Your task to perform on an android device: check android version Image 0: 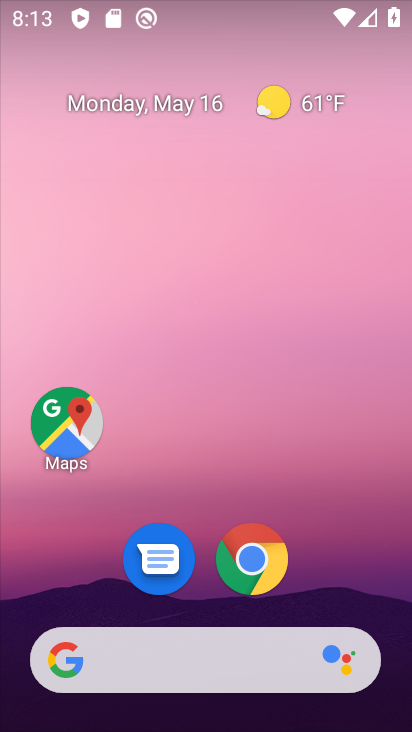
Step 0: drag from (334, 605) to (356, 126)
Your task to perform on an android device: check android version Image 1: 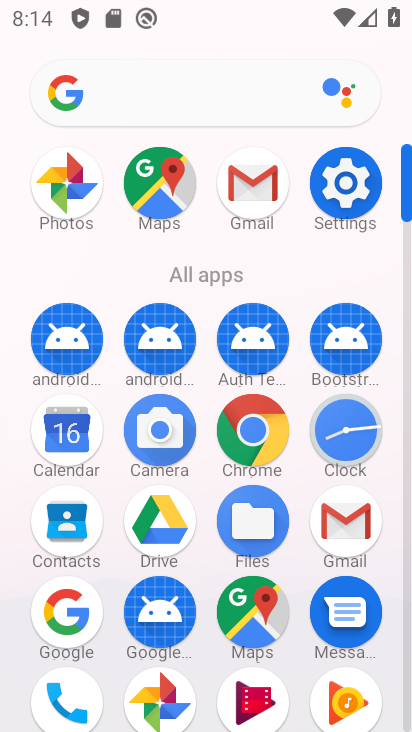
Step 1: click (367, 199)
Your task to perform on an android device: check android version Image 2: 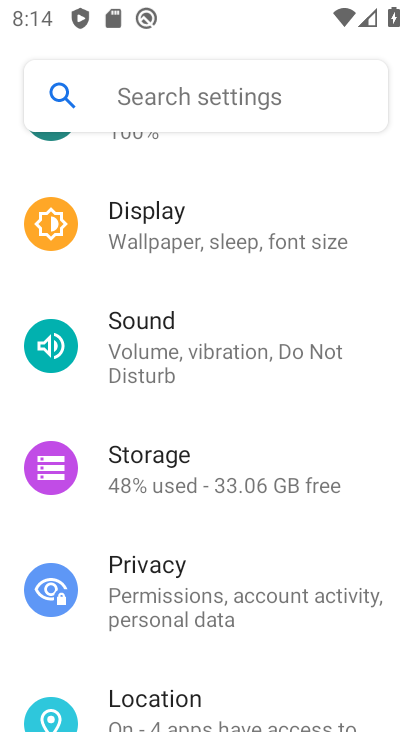
Step 2: drag from (187, 632) to (321, 217)
Your task to perform on an android device: check android version Image 3: 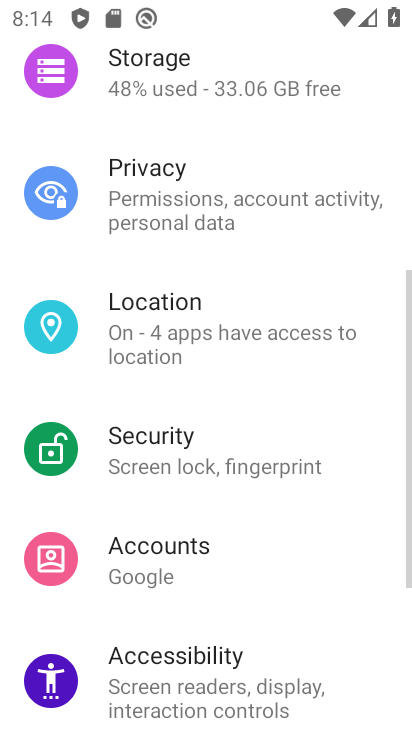
Step 3: drag from (302, 486) to (354, 96)
Your task to perform on an android device: check android version Image 4: 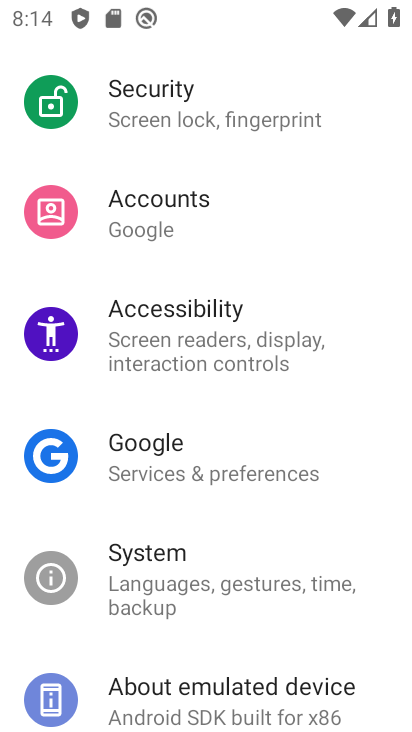
Step 4: click (194, 694)
Your task to perform on an android device: check android version Image 5: 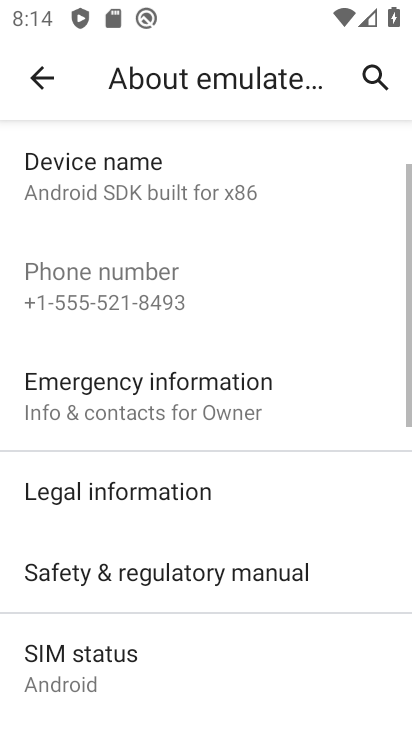
Step 5: drag from (130, 679) to (283, 168)
Your task to perform on an android device: check android version Image 6: 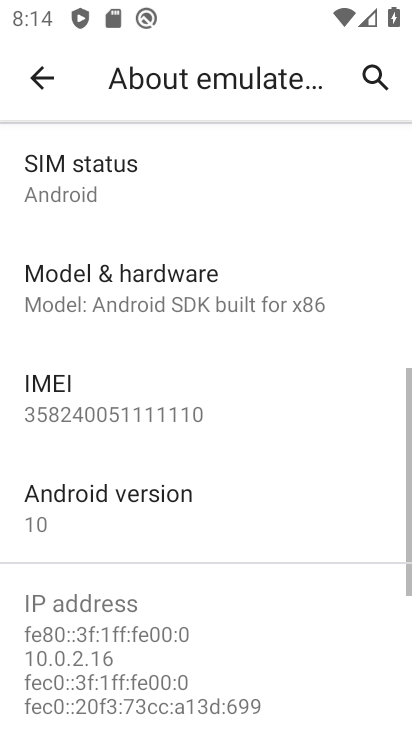
Step 6: click (177, 512)
Your task to perform on an android device: check android version Image 7: 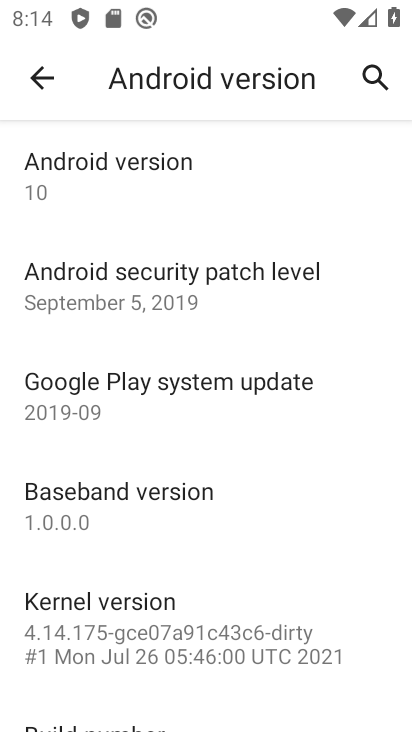
Step 7: task complete